Your task to perform on an android device: Open Wikipedia Image 0: 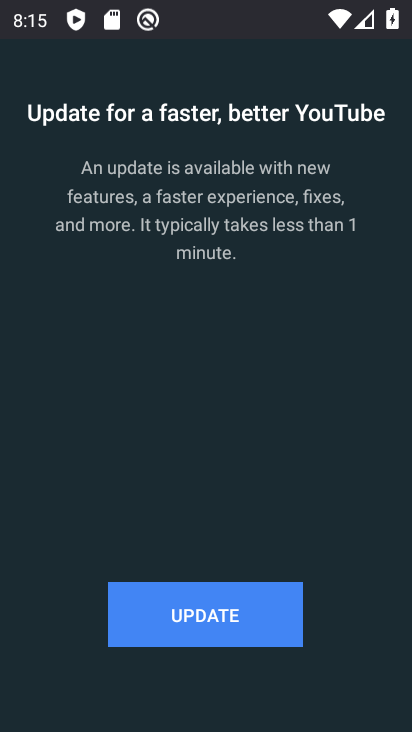
Step 0: press home button
Your task to perform on an android device: Open Wikipedia Image 1: 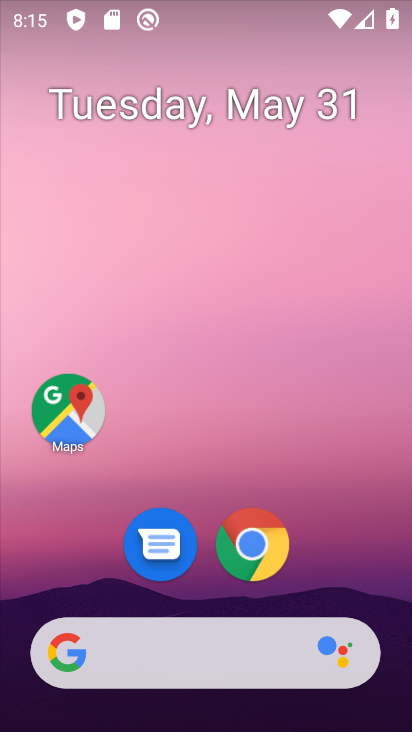
Step 1: click (262, 555)
Your task to perform on an android device: Open Wikipedia Image 2: 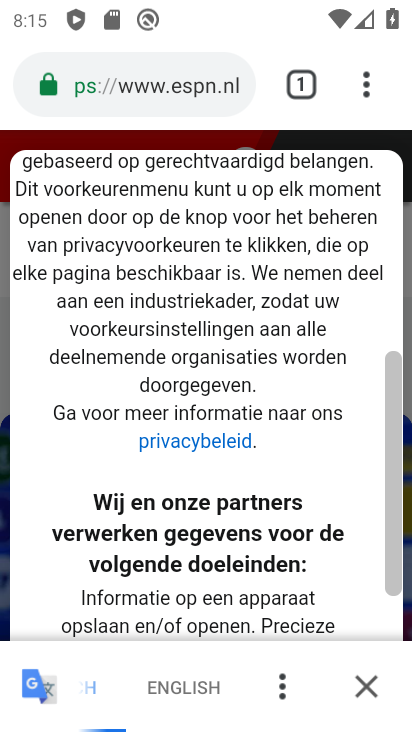
Step 2: click (208, 94)
Your task to perform on an android device: Open Wikipedia Image 3: 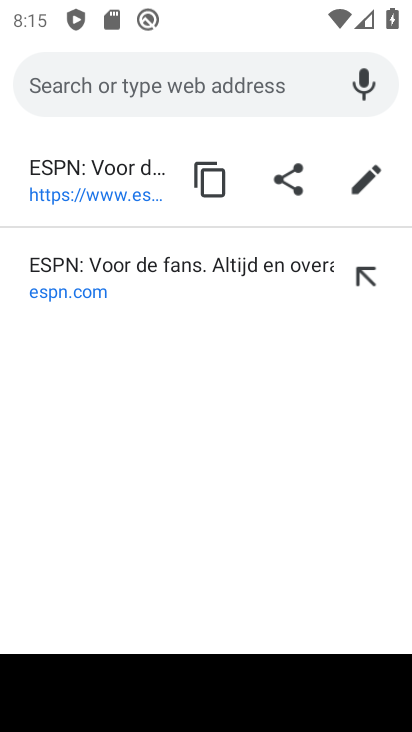
Step 3: type "wikipedia"
Your task to perform on an android device: Open Wikipedia Image 4: 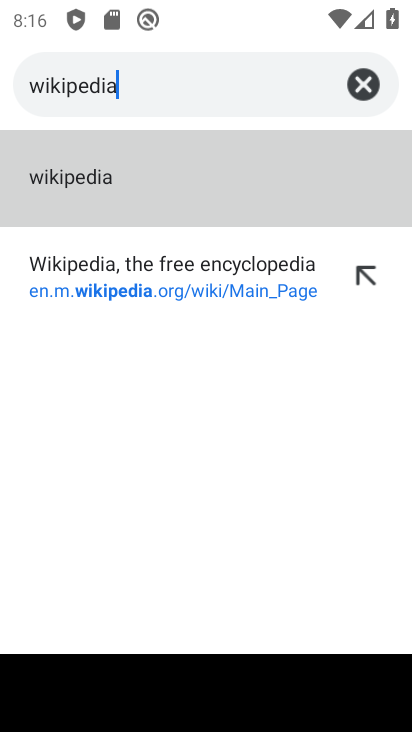
Step 4: click (176, 266)
Your task to perform on an android device: Open Wikipedia Image 5: 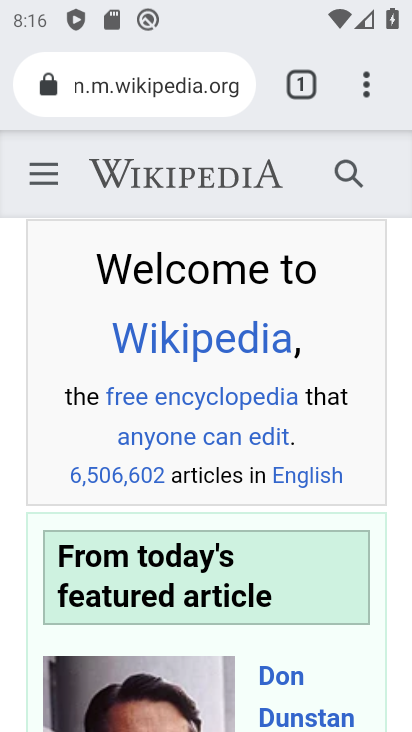
Step 5: task complete